Your task to perform on an android device: check google app version Image 0: 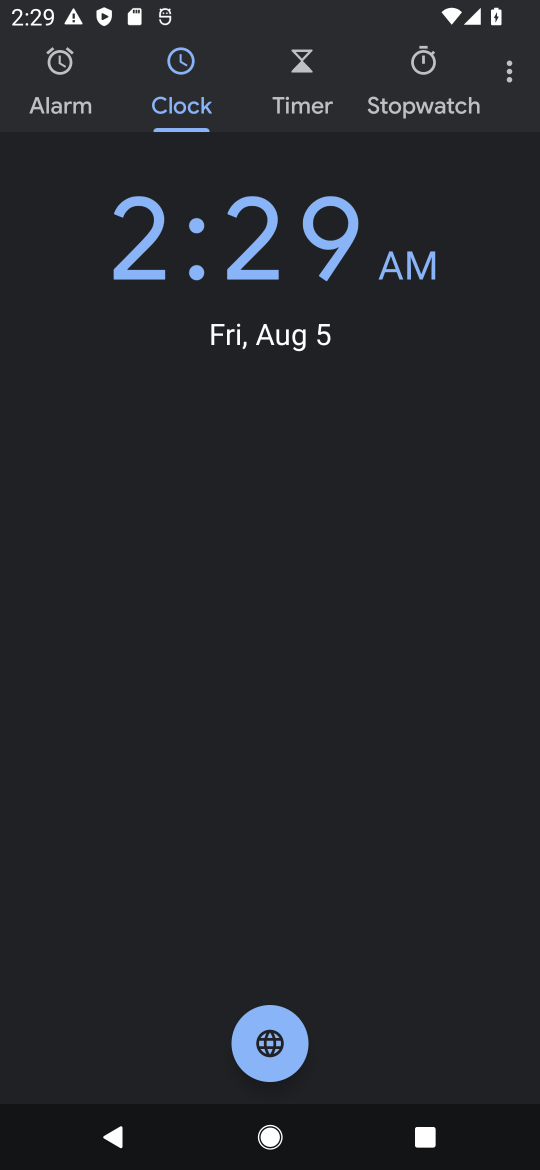
Step 0: press home button
Your task to perform on an android device: check google app version Image 1: 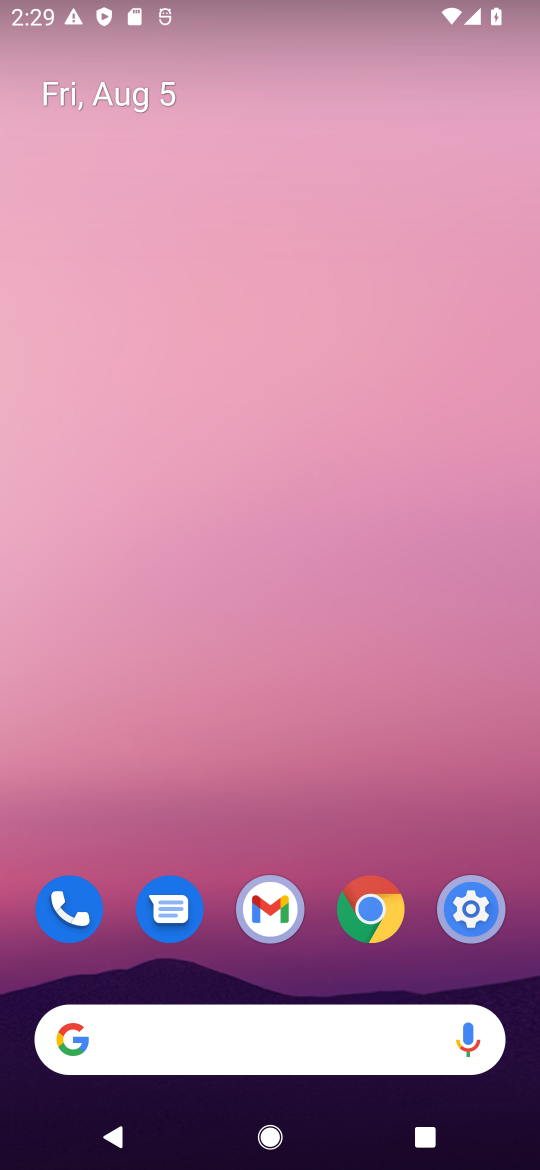
Step 1: drag from (325, 825) to (368, 320)
Your task to perform on an android device: check google app version Image 2: 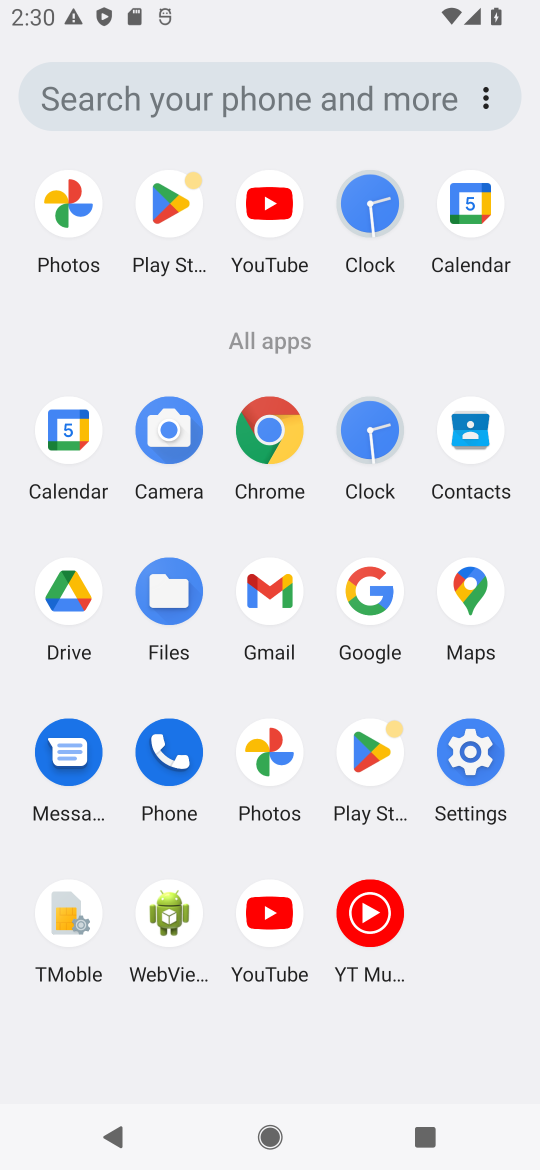
Step 2: click (370, 608)
Your task to perform on an android device: check google app version Image 3: 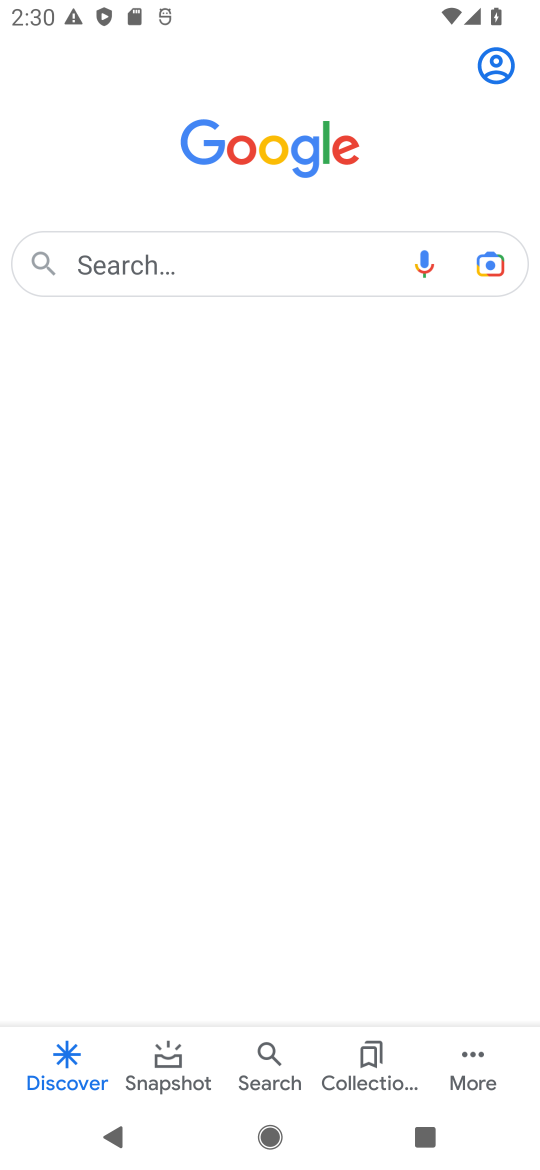
Step 3: click (471, 1078)
Your task to perform on an android device: check google app version Image 4: 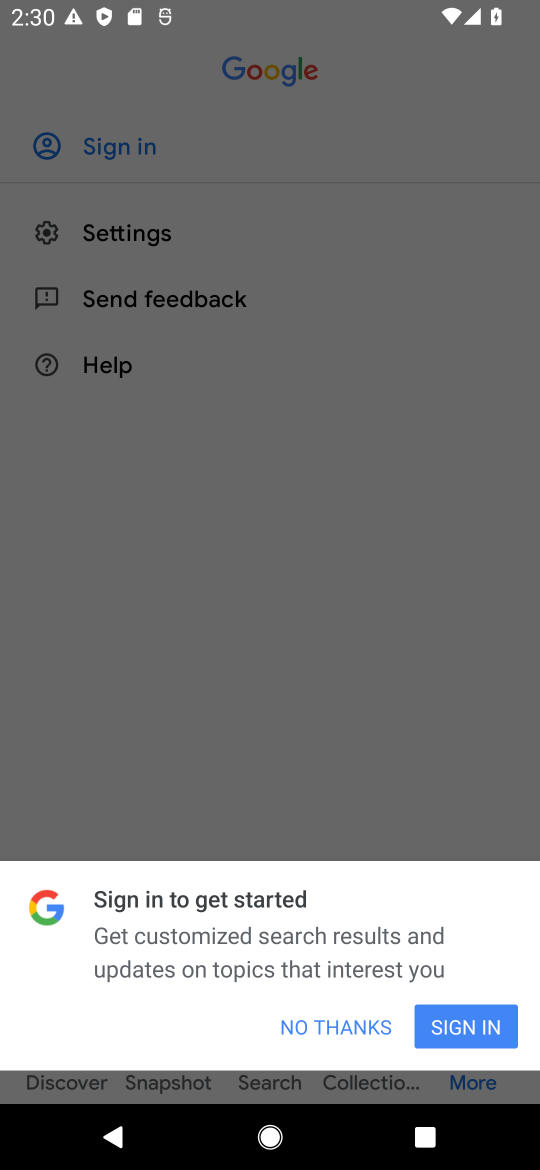
Step 4: click (330, 1031)
Your task to perform on an android device: check google app version Image 5: 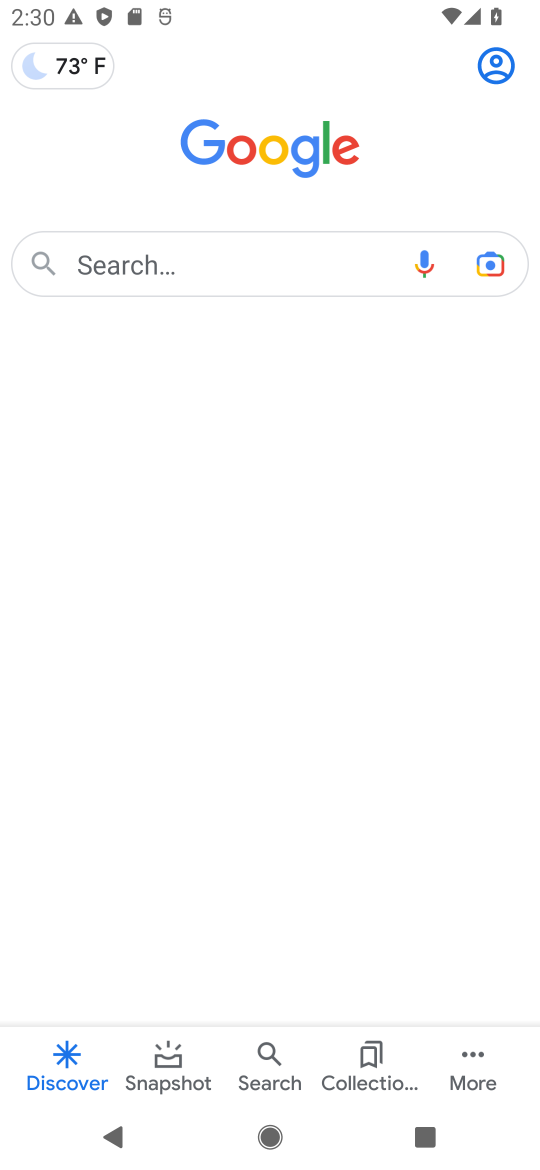
Step 5: click (472, 1069)
Your task to perform on an android device: check google app version Image 6: 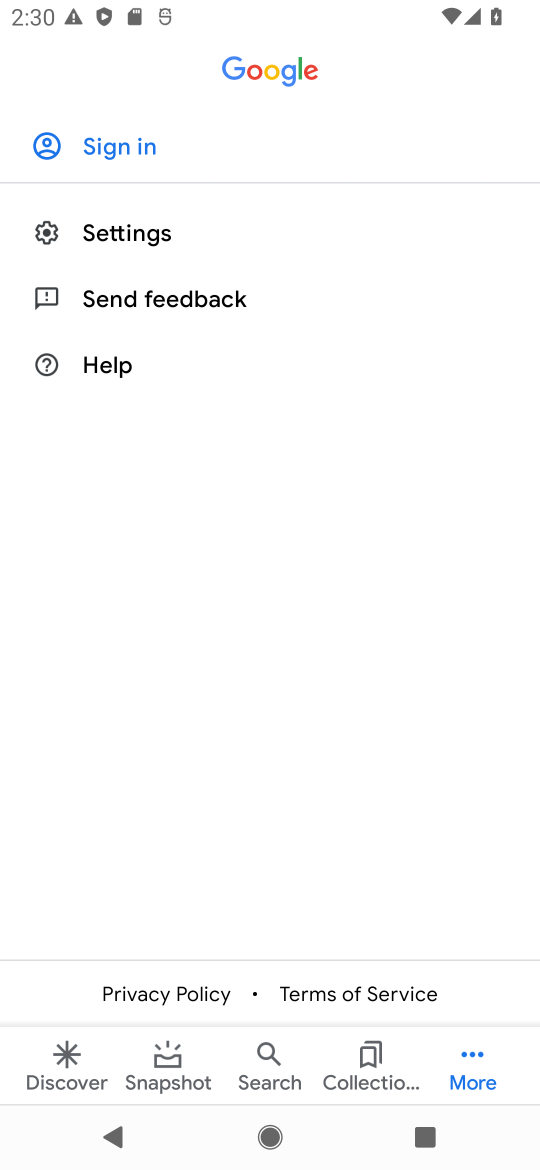
Step 6: click (190, 232)
Your task to perform on an android device: check google app version Image 7: 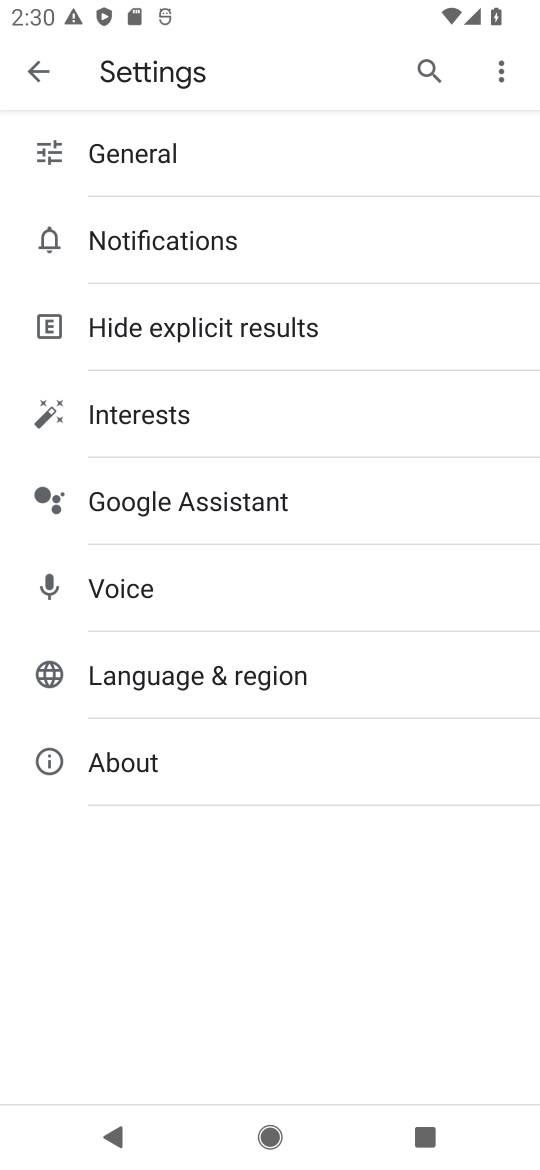
Step 7: click (403, 756)
Your task to perform on an android device: check google app version Image 8: 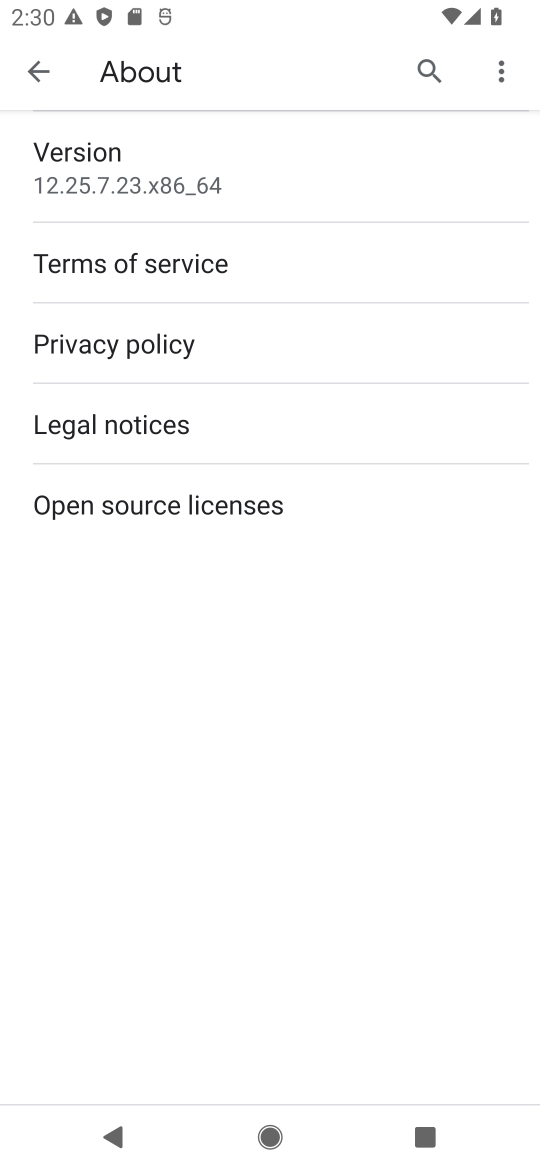
Step 8: task complete